Your task to perform on an android device: change keyboard looks Image 0: 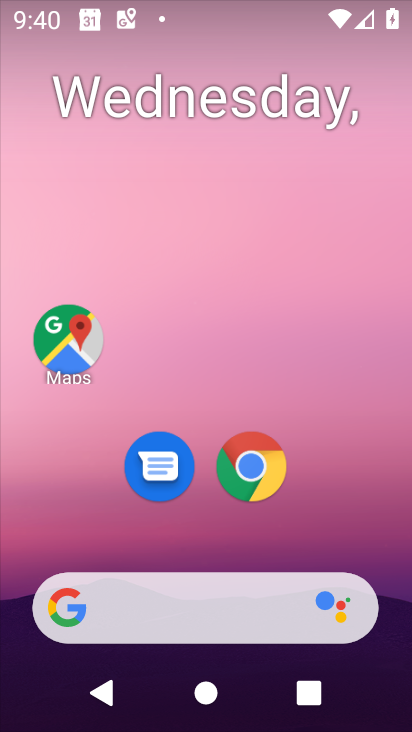
Step 0: drag from (324, 532) to (352, 201)
Your task to perform on an android device: change keyboard looks Image 1: 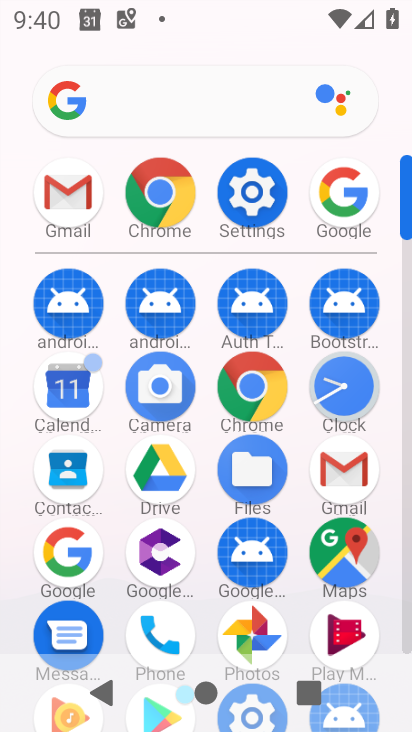
Step 1: click (245, 181)
Your task to perform on an android device: change keyboard looks Image 2: 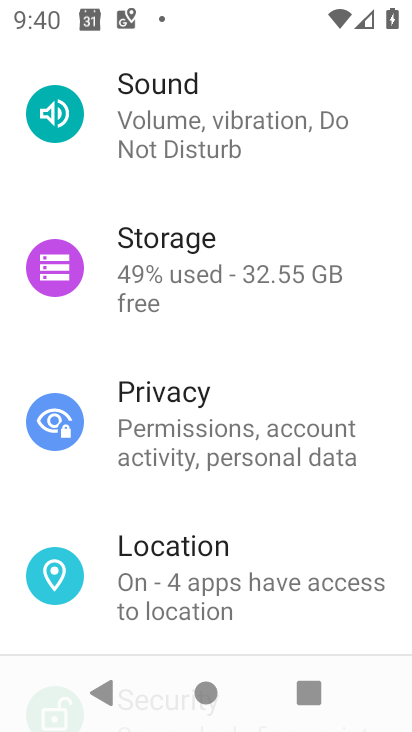
Step 2: drag from (263, 565) to (317, 127)
Your task to perform on an android device: change keyboard looks Image 3: 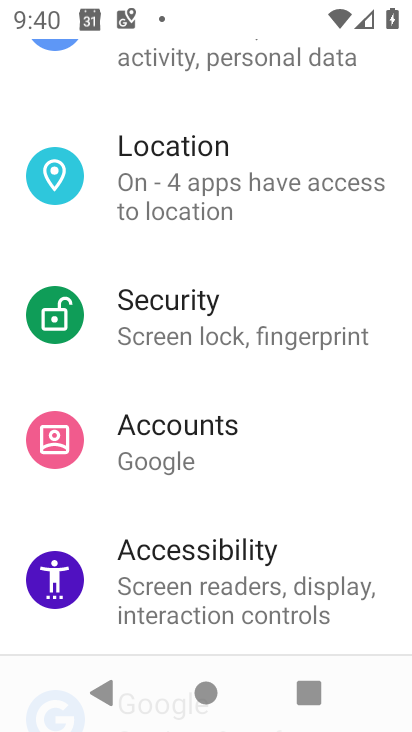
Step 3: click (197, 558)
Your task to perform on an android device: change keyboard looks Image 4: 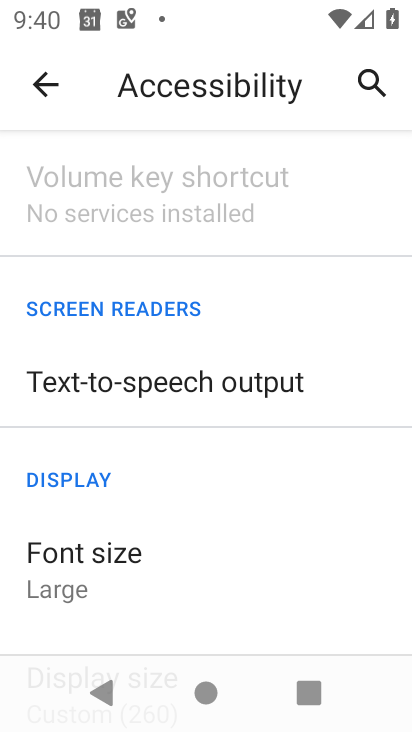
Step 4: click (54, 78)
Your task to perform on an android device: change keyboard looks Image 5: 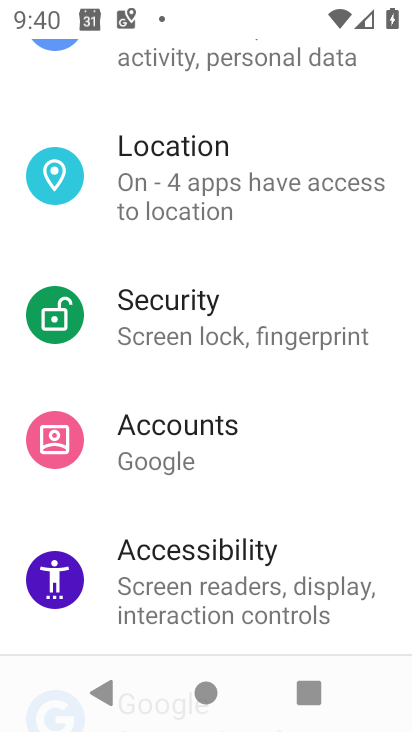
Step 5: drag from (224, 551) to (274, 136)
Your task to perform on an android device: change keyboard looks Image 6: 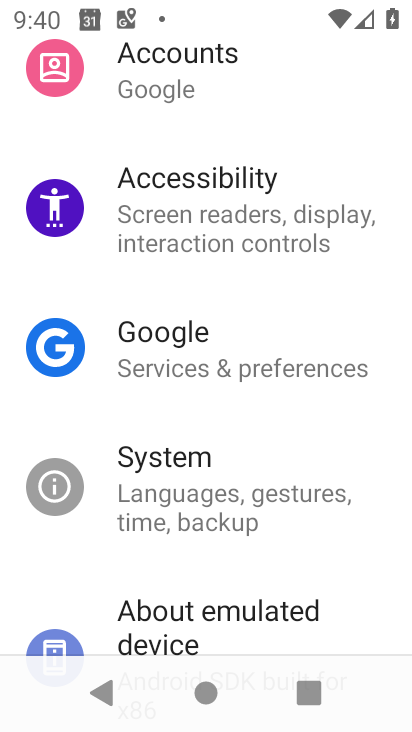
Step 6: drag from (195, 610) to (266, 263)
Your task to perform on an android device: change keyboard looks Image 7: 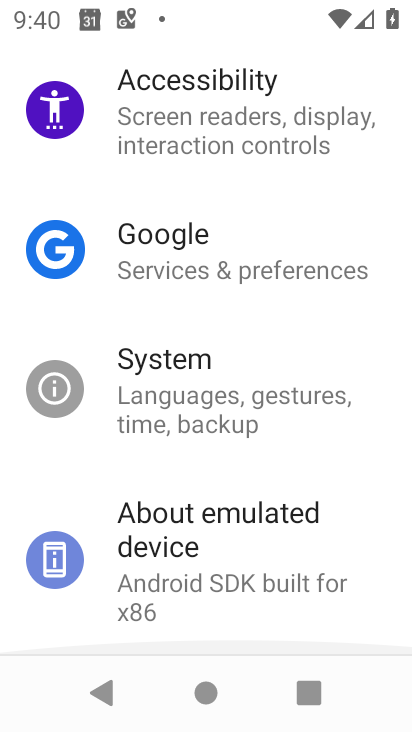
Step 7: click (173, 394)
Your task to perform on an android device: change keyboard looks Image 8: 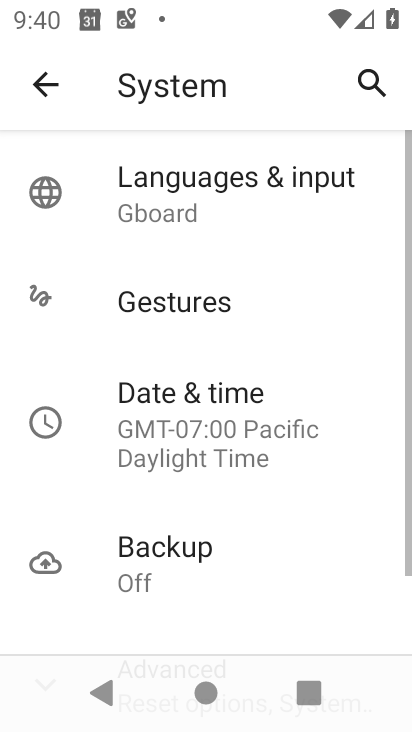
Step 8: click (135, 196)
Your task to perform on an android device: change keyboard looks Image 9: 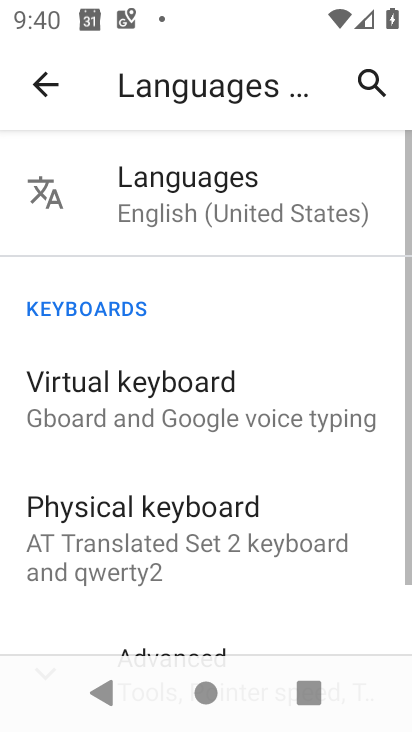
Step 9: click (109, 412)
Your task to perform on an android device: change keyboard looks Image 10: 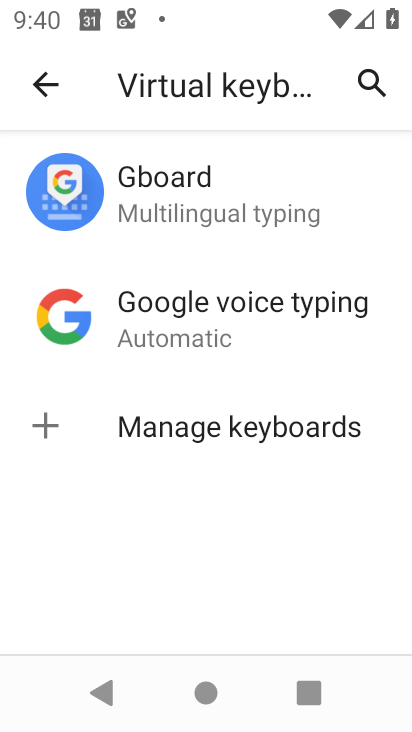
Step 10: click (181, 205)
Your task to perform on an android device: change keyboard looks Image 11: 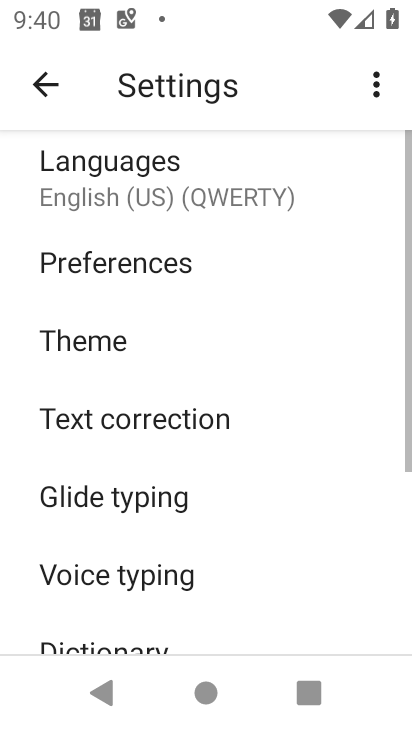
Step 11: click (170, 423)
Your task to perform on an android device: change keyboard looks Image 12: 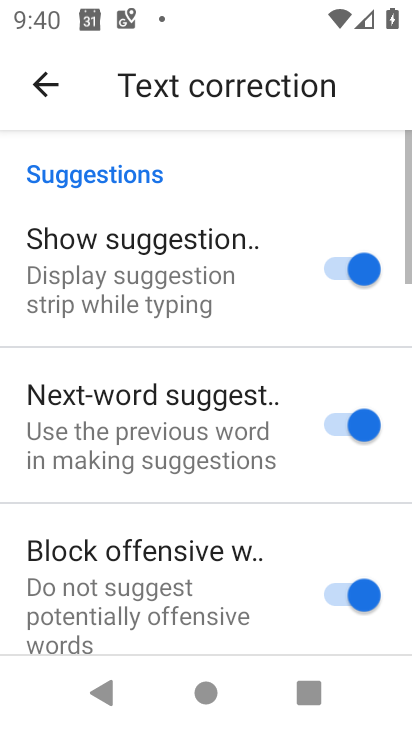
Step 12: click (33, 83)
Your task to perform on an android device: change keyboard looks Image 13: 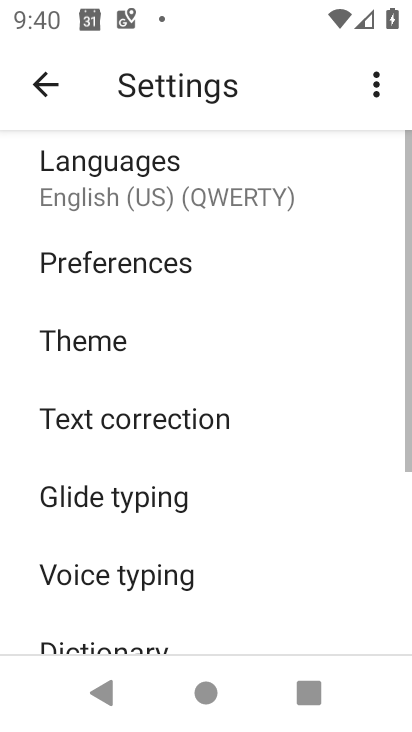
Step 13: click (104, 338)
Your task to perform on an android device: change keyboard looks Image 14: 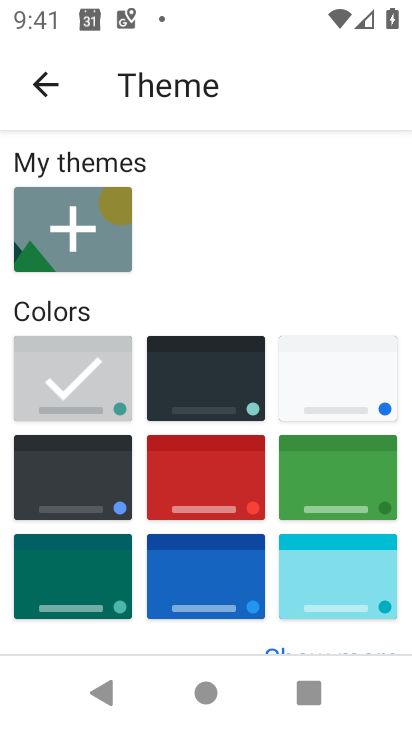
Step 14: click (302, 385)
Your task to perform on an android device: change keyboard looks Image 15: 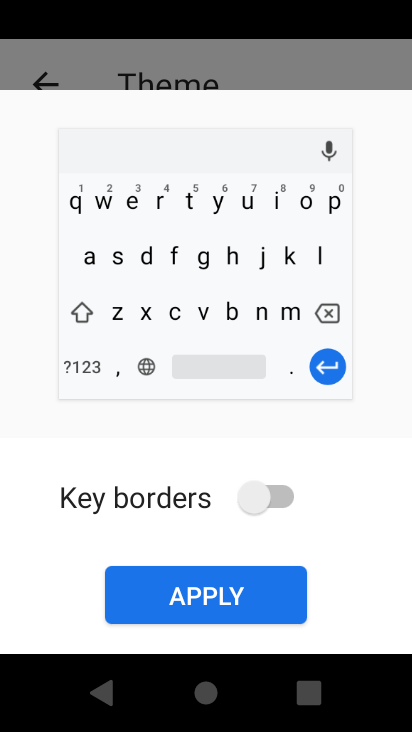
Step 15: click (204, 575)
Your task to perform on an android device: change keyboard looks Image 16: 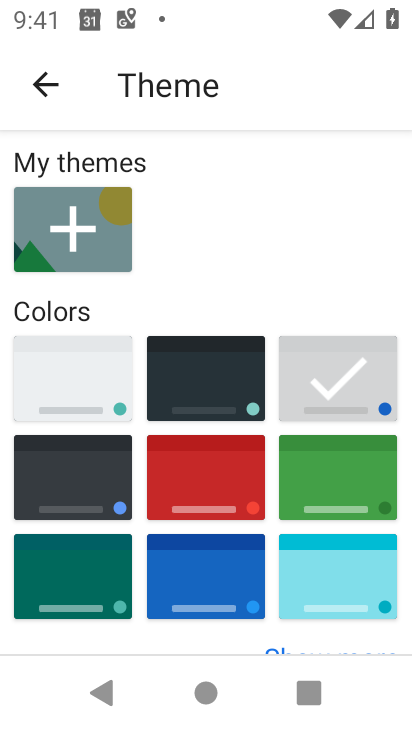
Step 16: task complete